Your task to perform on an android device: turn off location Image 0: 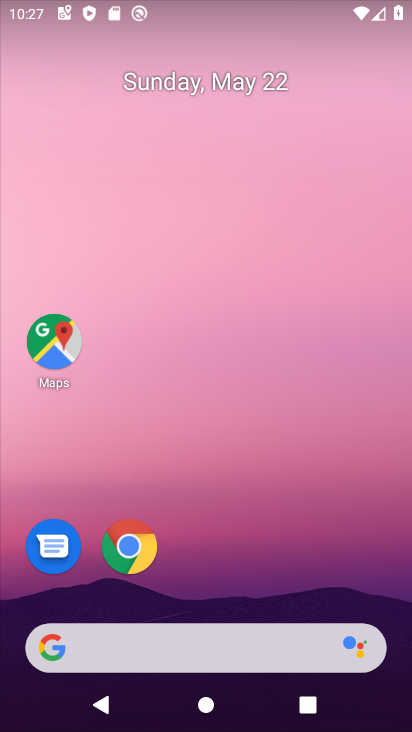
Step 0: drag from (231, 595) to (279, 38)
Your task to perform on an android device: turn off location Image 1: 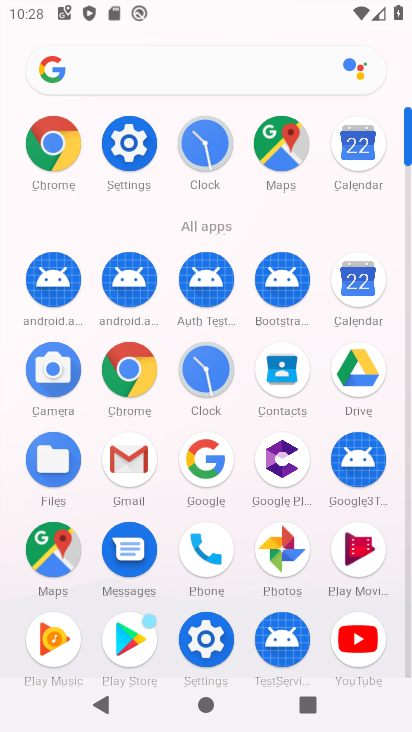
Step 1: click (206, 641)
Your task to perform on an android device: turn off location Image 2: 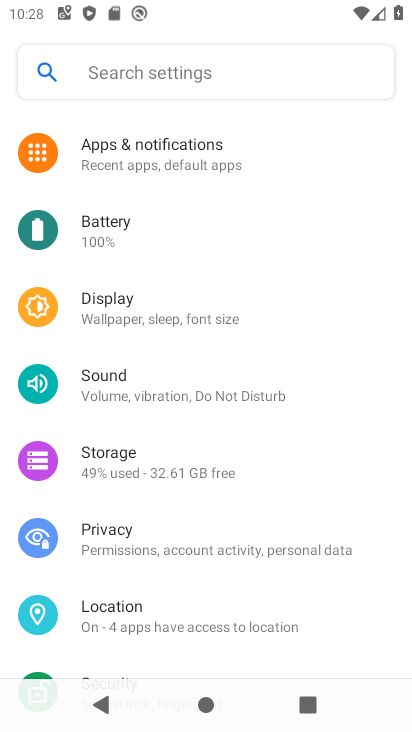
Step 2: click (148, 623)
Your task to perform on an android device: turn off location Image 3: 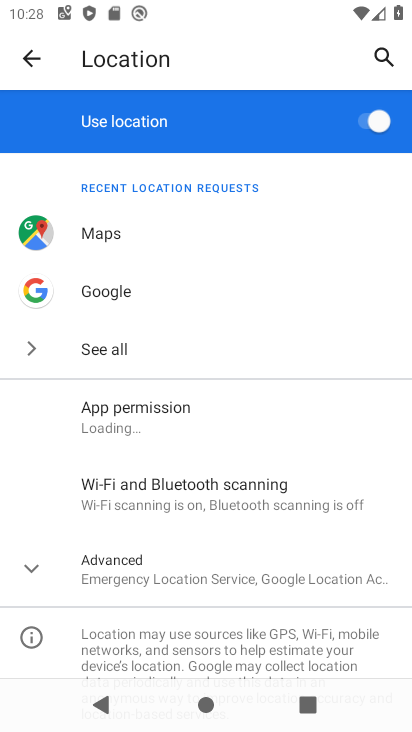
Step 3: click (144, 618)
Your task to perform on an android device: turn off location Image 4: 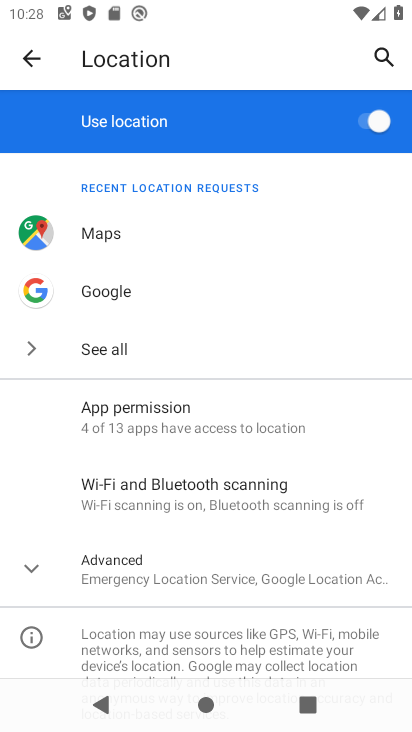
Step 4: click (348, 124)
Your task to perform on an android device: turn off location Image 5: 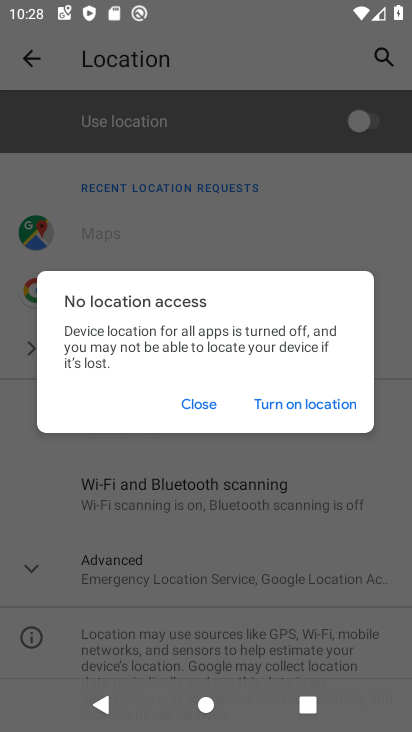
Step 5: click (187, 407)
Your task to perform on an android device: turn off location Image 6: 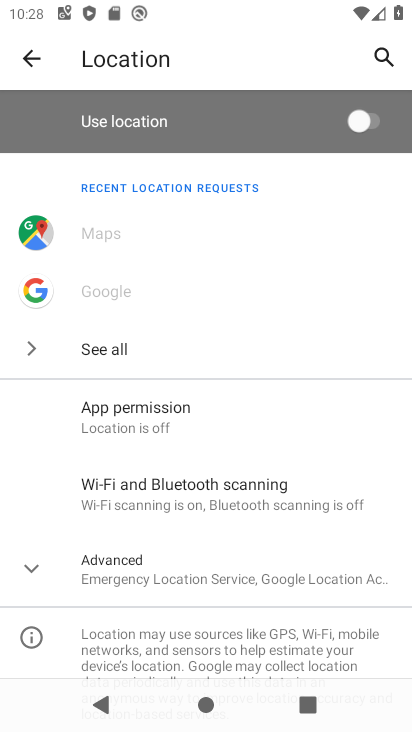
Step 6: task complete